Your task to perform on an android device: Open sound settings Image 0: 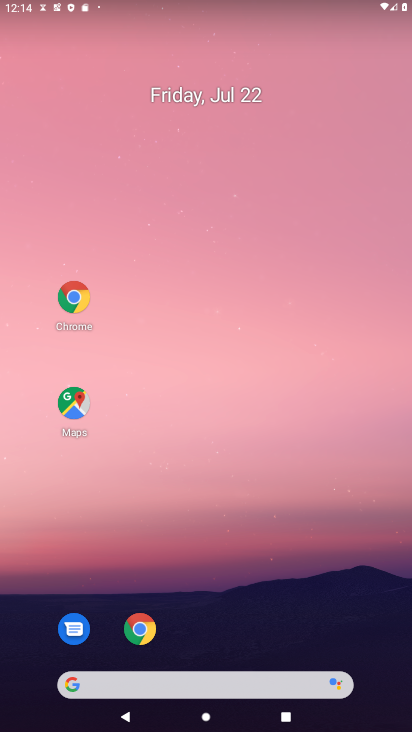
Step 0: drag from (250, 680) to (188, 371)
Your task to perform on an android device: Open sound settings Image 1: 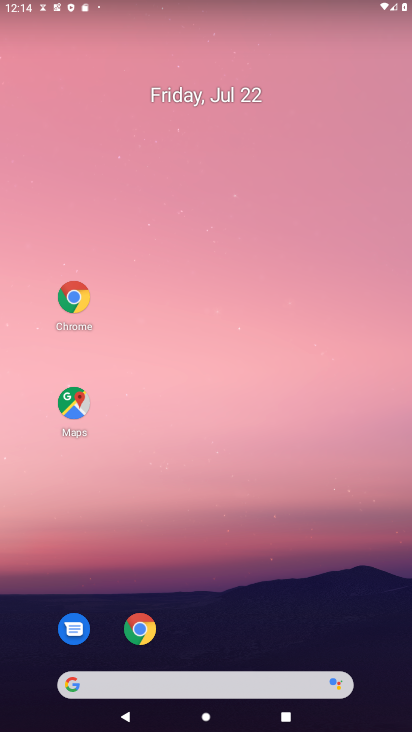
Step 1: drag from (226, 668) to (247, 105)
Your task to perform on an android device: Open sound settings Image 2: 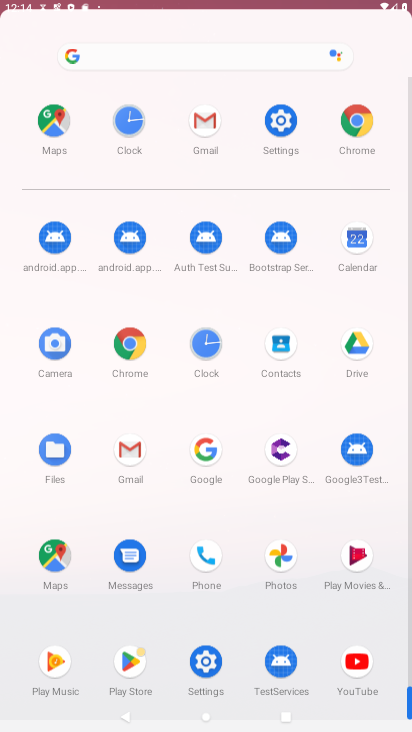
Step 2: drag from (291, 464) to (272, 84)
Your task to perform on an android device: Open sound settings Image 3: 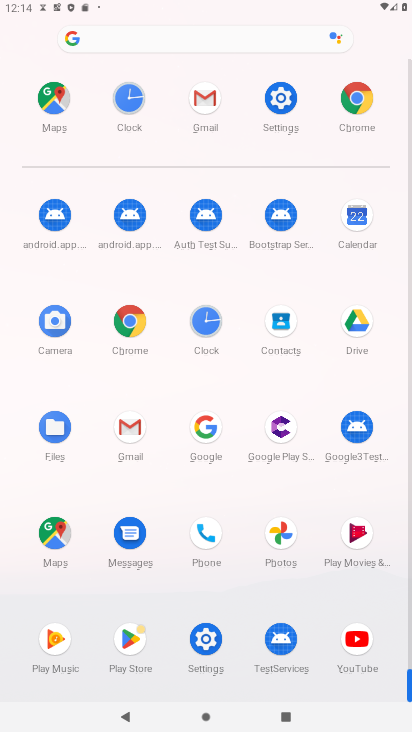
Step 3: click (271, 91)
Your task to perform on an android device: Open sound settings Image 4: 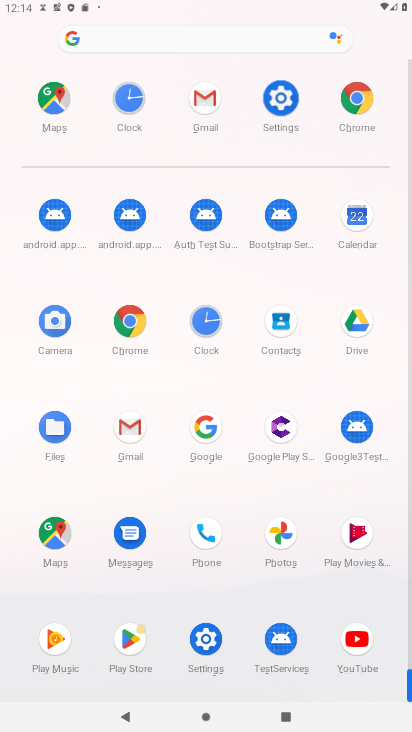
Step 4: click (274, 93)
Your task to perform on an android device: Open sound settings Image 5: 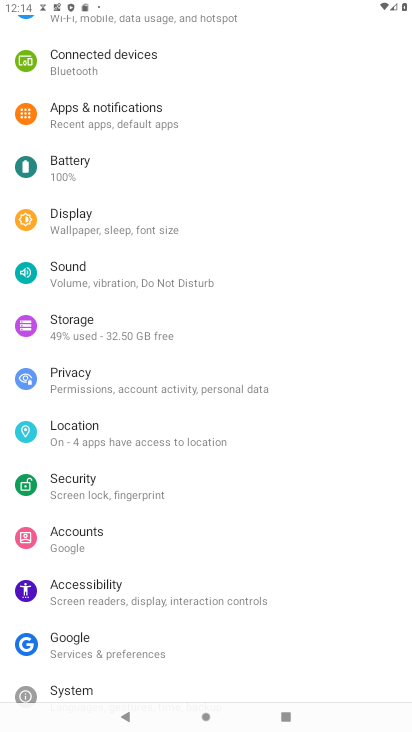
Step 5: click (82, 285)
Your task to perform on an android device: Open sound settings Image 6: 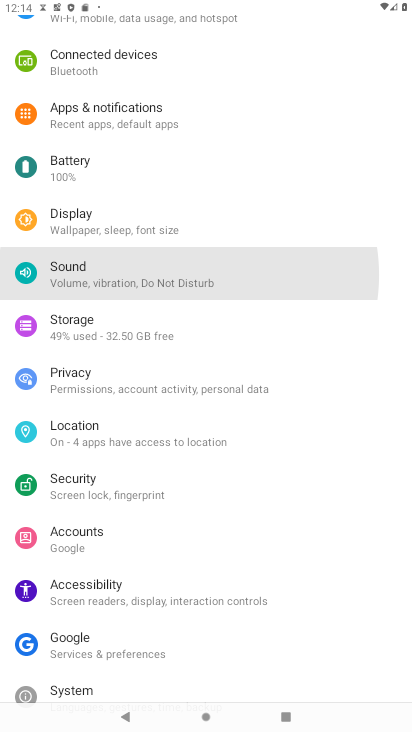
Step 6: click (77, 279)
Your task to perform on an android device: Open sound settings Image 7: 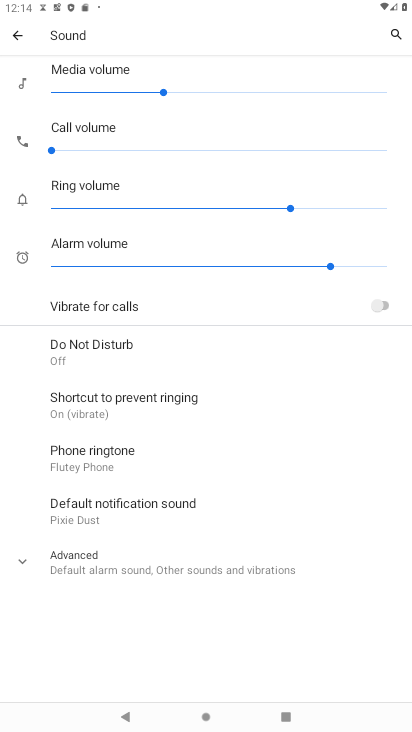
Step 7: task complete